Your task to perform on an android device: Open Youtube and go to the subscriptions tab Image 0: 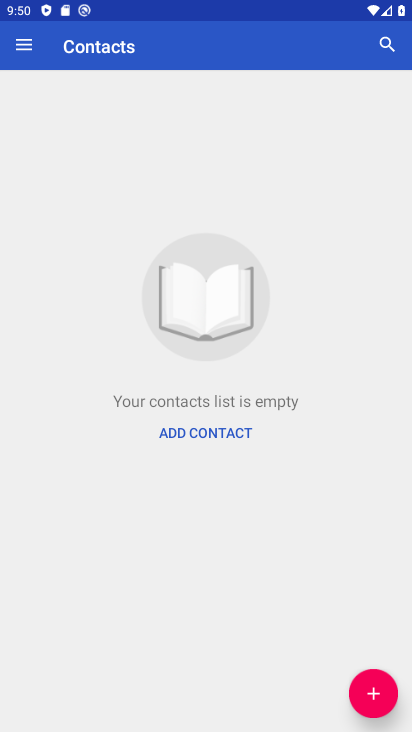
Step 0: press home button
Your task to perform on an android device: Open Youtube and go to the subscriptions tab Image 1: 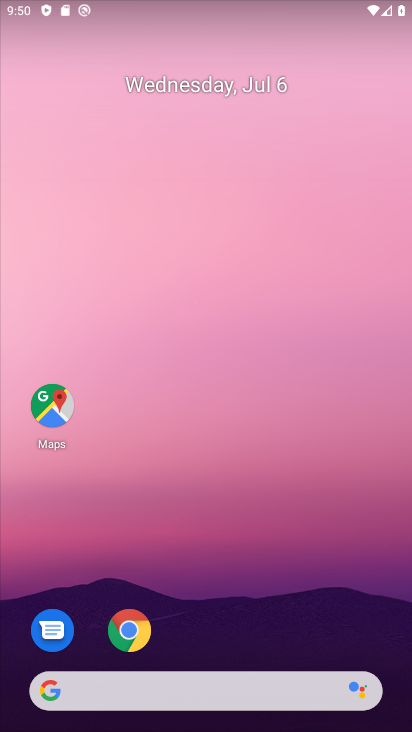
Step 1: drag from (350, 523) to (328, 12)
Your task to perform on an android device: Open Youtube and go to the subscriptions tab Image 2: 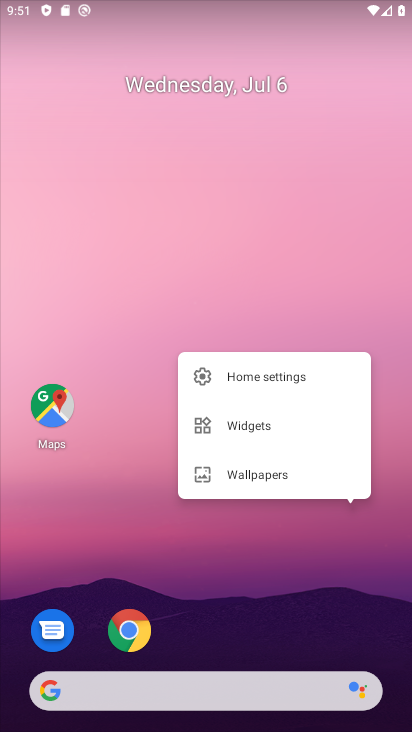
Step 2: drag from (301, 341) to (319, 0)
Your task to perform on an android device: Open Youtube and go to the subscriptions tab Image 3: 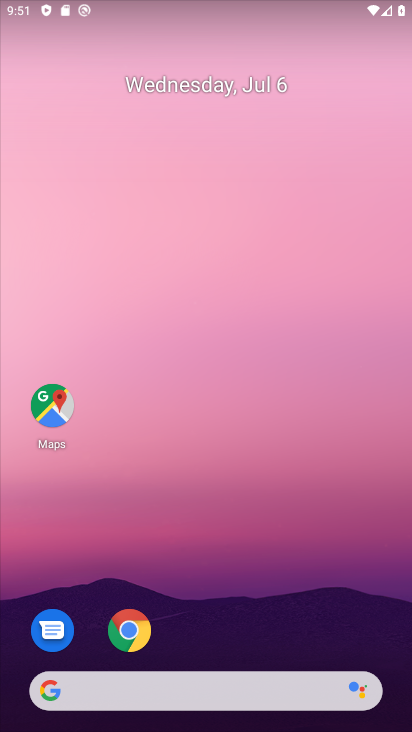
Step 3: drag from (289, 682) to (330, 166)
Your task to perform on an android device: Open Youtube and go to the subscriptions tab Image 4: 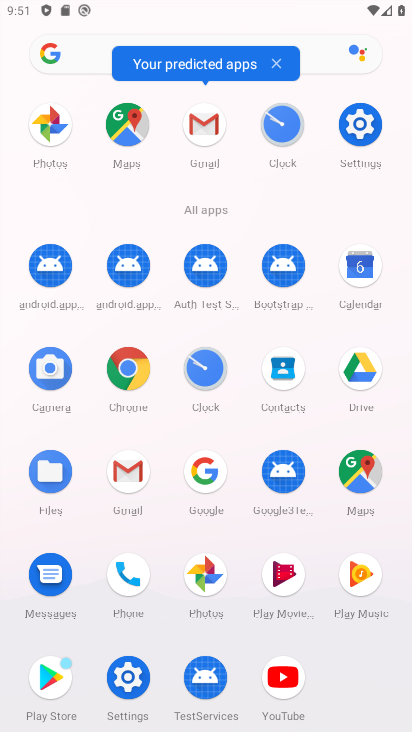
Step 4: click (271, 676)
Your task to perform on an android device: Open Youtube and go to the subscriptions tab Image 5: 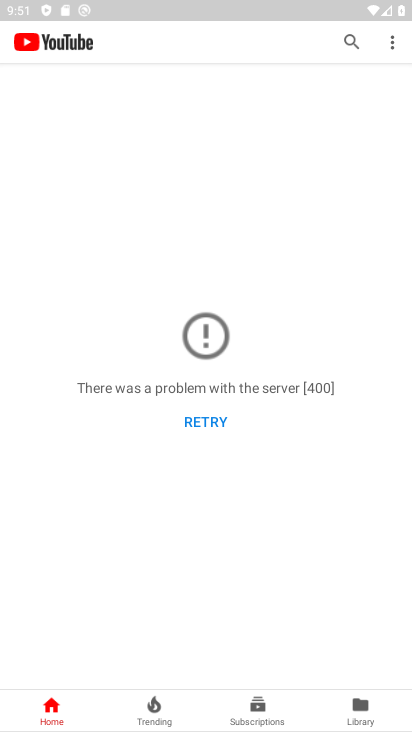
Step 5: click (207, 426)
Your task to perform on an android device: Open Youtube and go to the subscriptions tab Image 6: 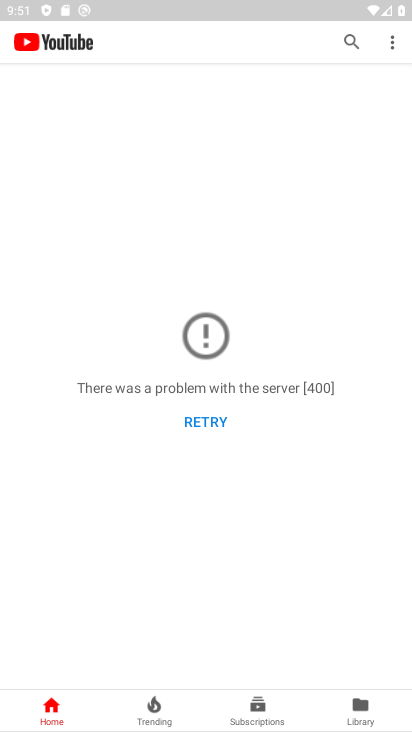
Step 6: click (207, 426)
Your task to perform on an android device: Open Youtube and go to the subscriptions tab Image 7: 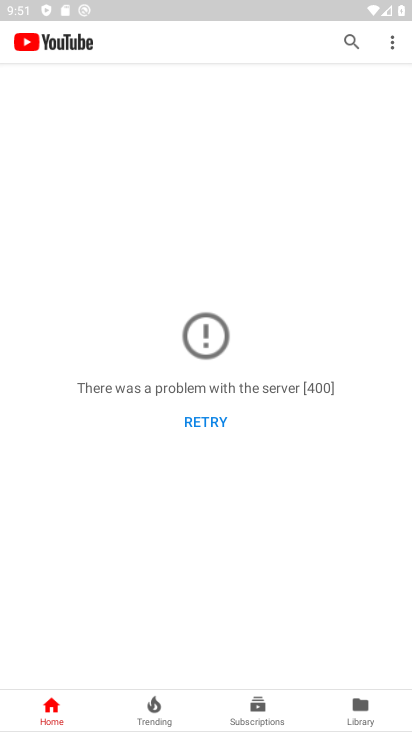
Step 7: task complete